Your task to perform on an android device: allow cookies in the chrome app Image 0: 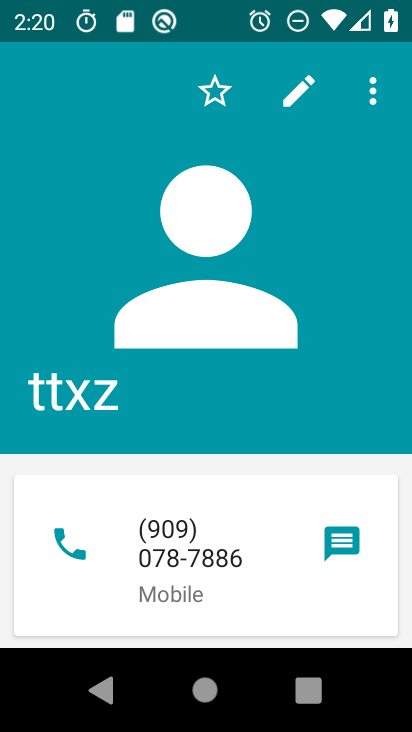
Step 0: press home button
Your task to perform on an android device: allow cookies in the chrome app Image 1: 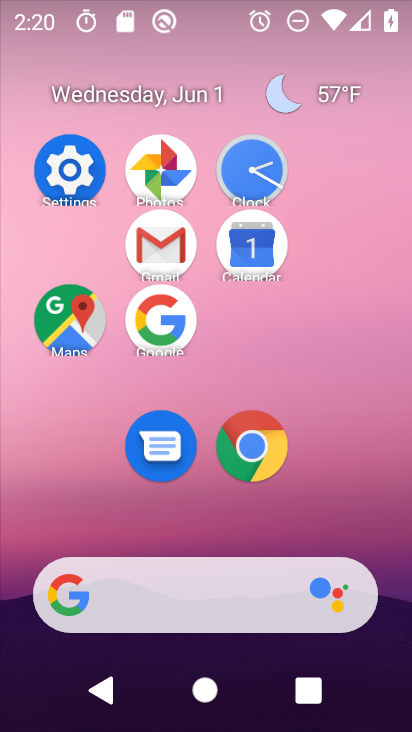
Step 1: click (270, 463)
Your task to perform on an android device: allow cookies in the chrome app Image 2: 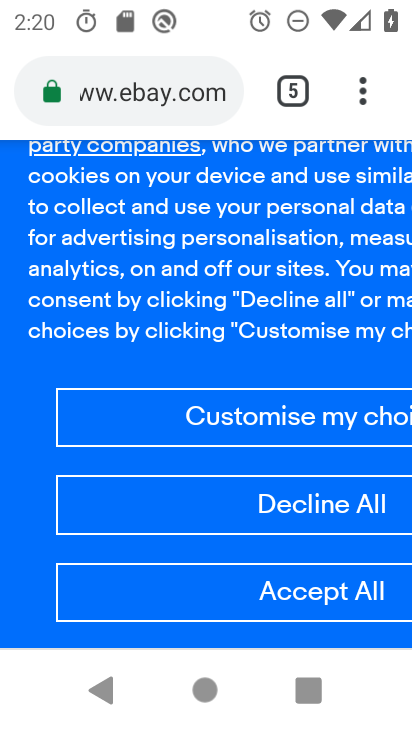
Step 2: click (359, 108)
Your task to perform on an android device: allow cookies in the chrome app Image 3: 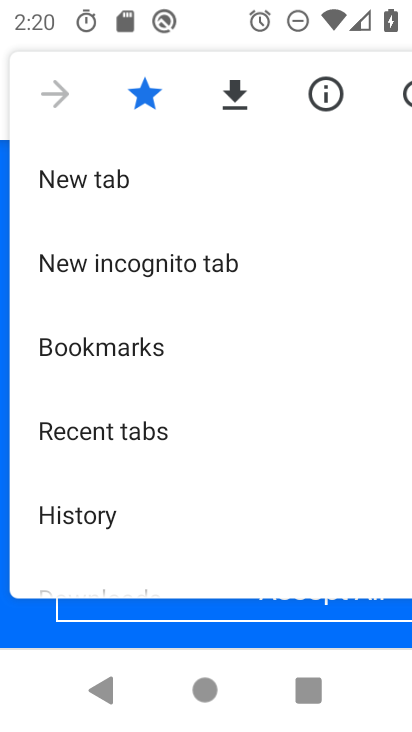
Step 3: drag from (224, 491) to (290, 99)
Your task to perform on an android device: allow cookies in the chrome app Image 4: 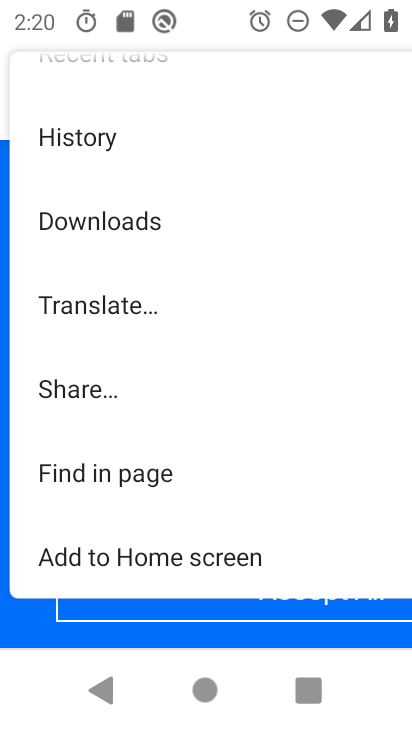
Step 4: drag from (143, 417) to (178, 107)
Your task to perform on an android device: allow cookies in the chrome app Image 5: 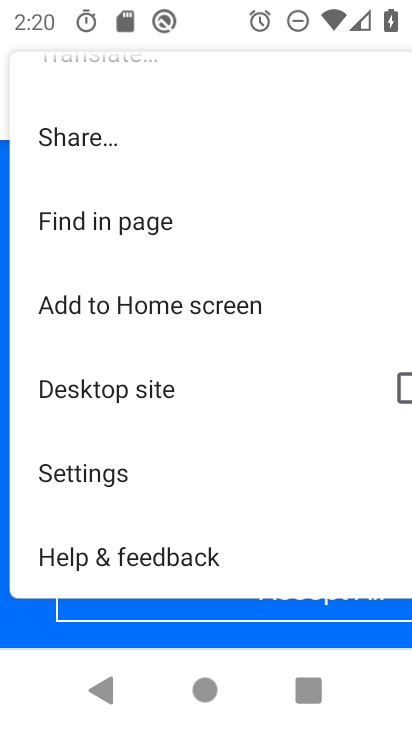
Step 5: click (142, 447)
Your task to perform on an android device: allow cookies in the chrome app Image 6: 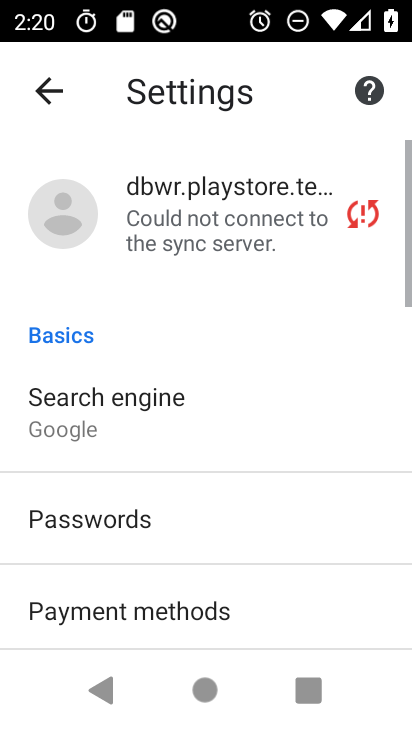
Step 6: drag from (142, 447) to (198, 84)
Your task to perform on an android device: allow cookies in the chrome app Image 7: 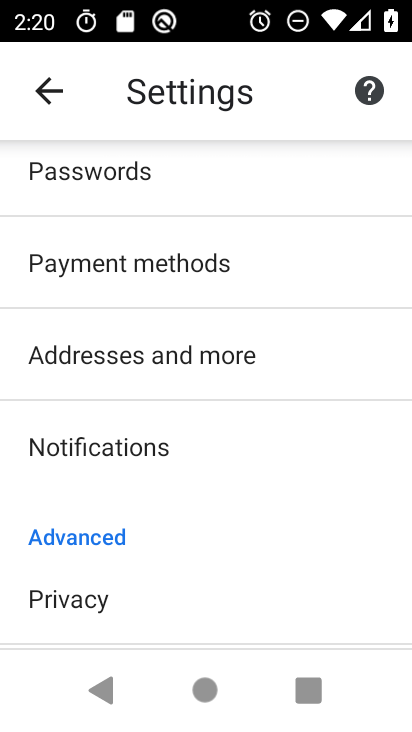
Step 7: drag from (194, 482) to (210, 83)
Your task to perform on an android device: allow cookies in the chrome app Image 8: 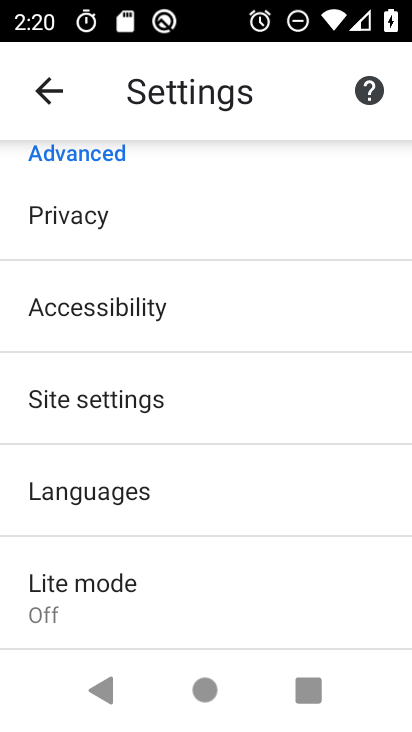
Step 8: click (188, 413)
Your task to perform on an android device: allow cookies in the chrome app Image 9: 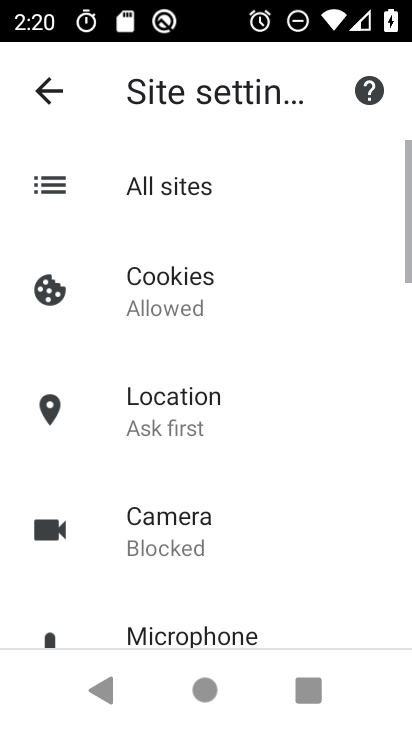
Step 9: click (236, 280)
Your task to perform on an android device: allow cookies in the chrome app Image 10: 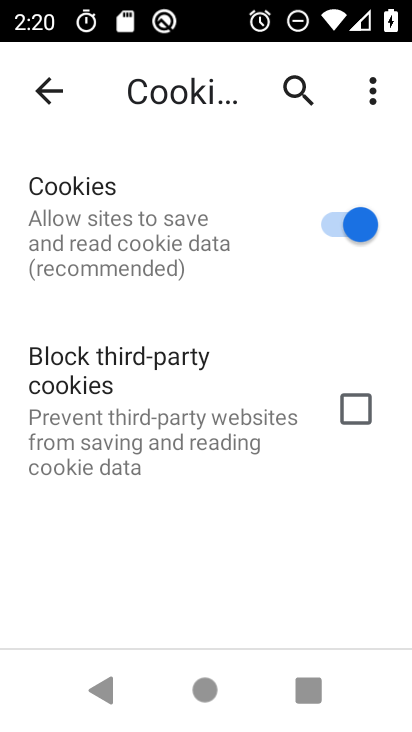
Step 10: task complete